Your task to perform on an android device: Do I have any events tomorrow? Image 0: 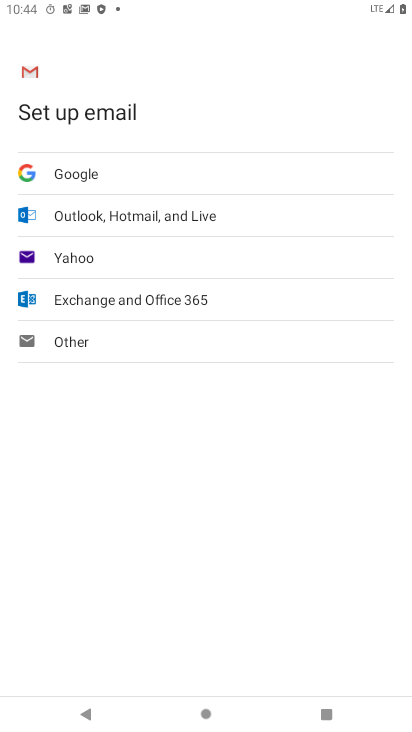
Step 0: press back button
Your task to perform on an android device: Do I have any events tomorrow? Image 1: 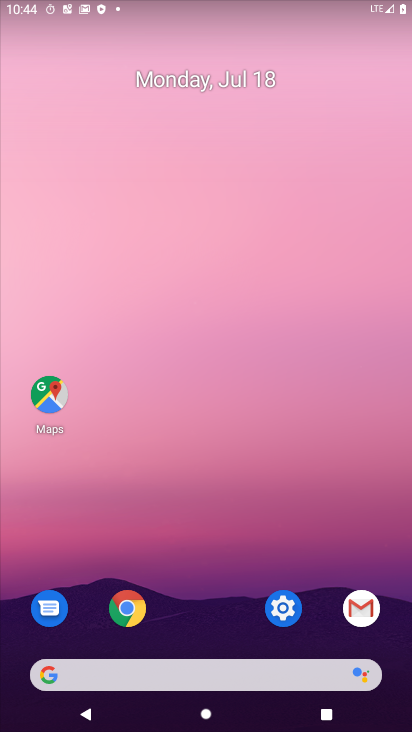
Step 1: click (214, 692)
Your task to perform on an android device: Do I have any events tomorrow? Image 2: 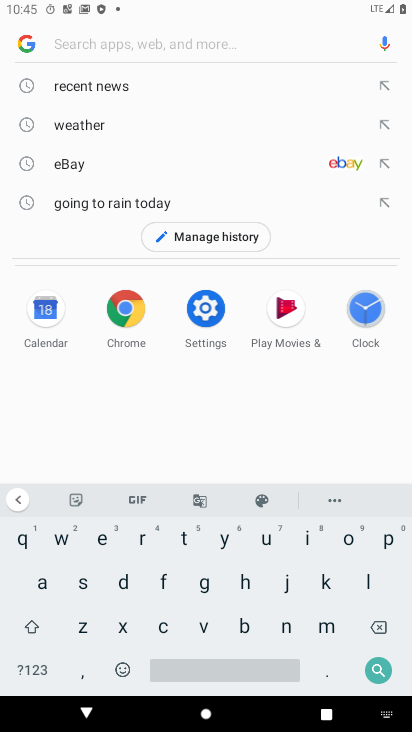
Step 2: click (58, 314)
Your task to perform on an android device: Do I have any events tomorrow? Image 3: 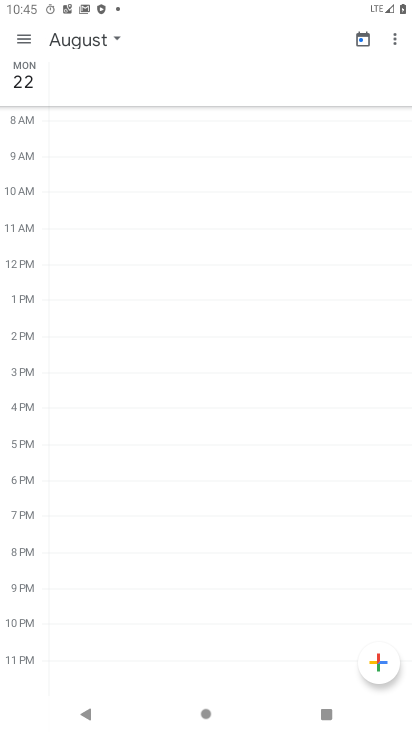
Step 3: task complete